Your task to perform on an android device: open app "DuckDuckGo Privacy Browser" Image 0: 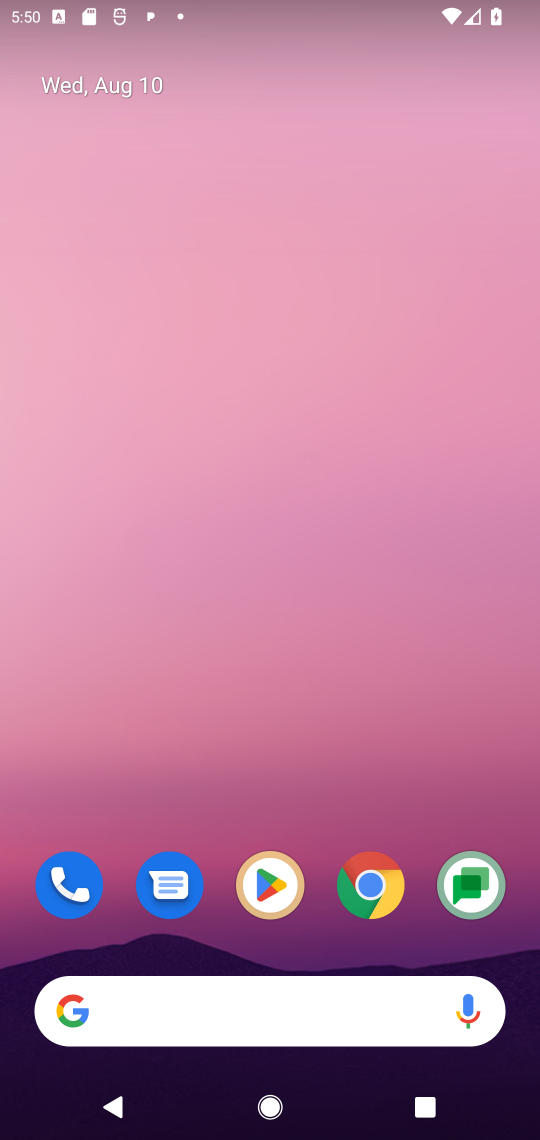
Step 0: click (272, 889)
Your task to perform on an android device: open app "DuckDuckGo Privacy Browser" Image 1: 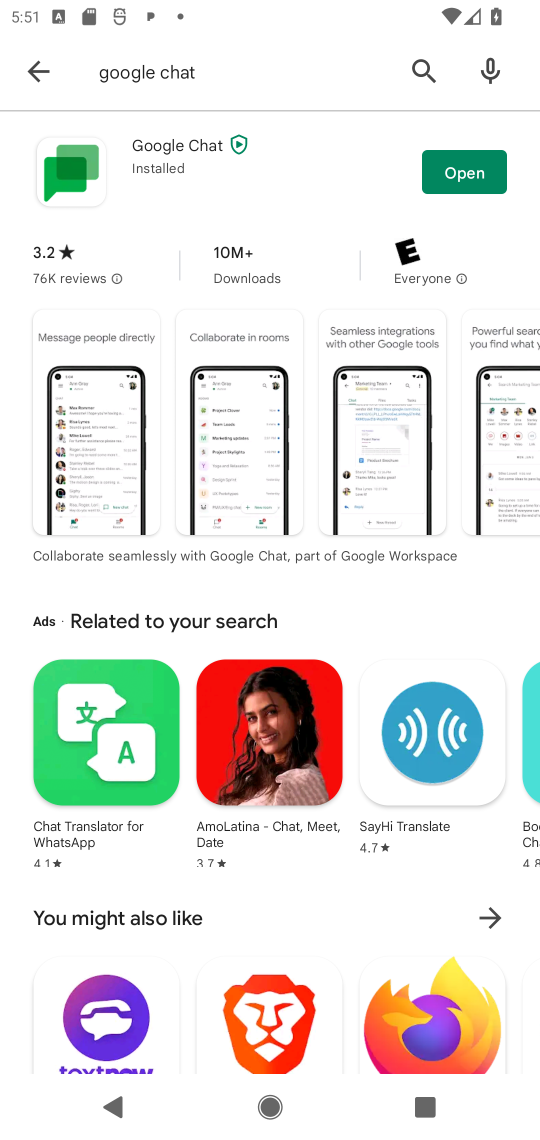
Step 1: click (403, 71)
Your task to perform on an android device: open app "DuckDuckGo Privacy Browser" Image 2: 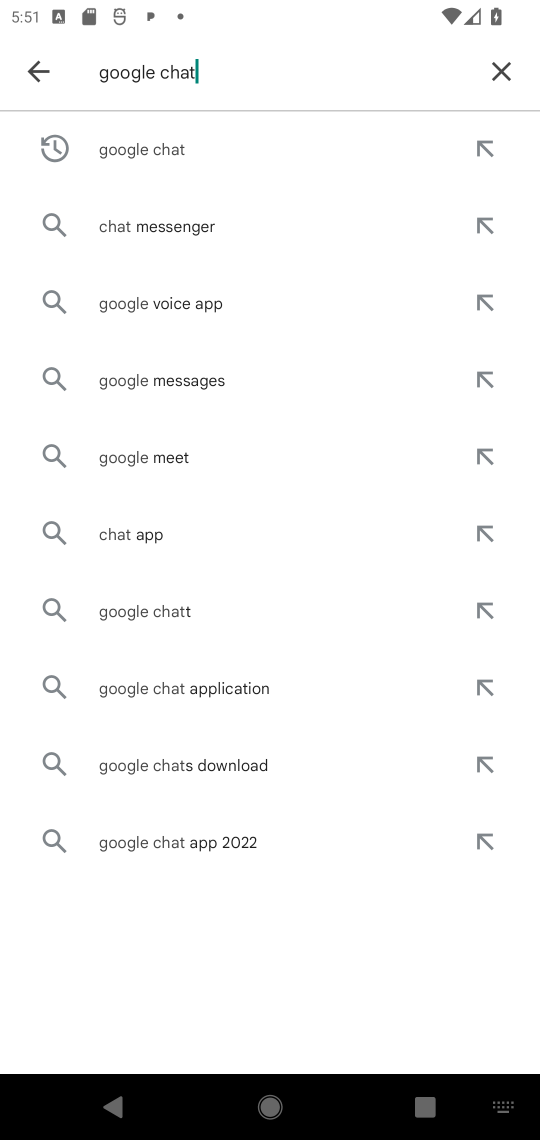
Step 2: click (500, 65)
Your task to perform on an android device: open app "DuckDuckGo Privacy Browser" Image 3: 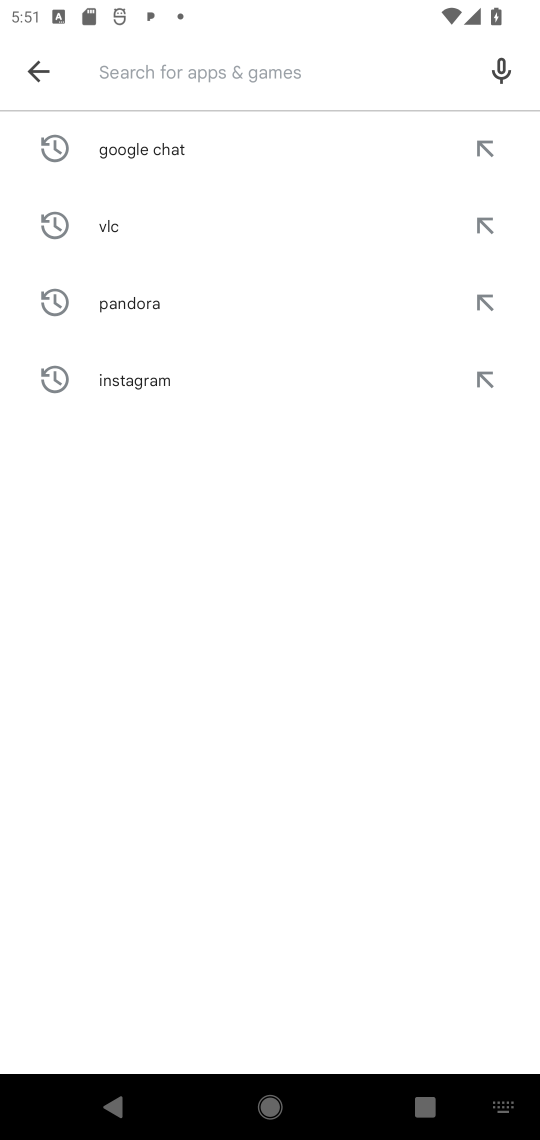
Step 3: click (178, 75)
Your task to perform on an android device: open app "DuckDuckGo Privacy Browser" Image 4: 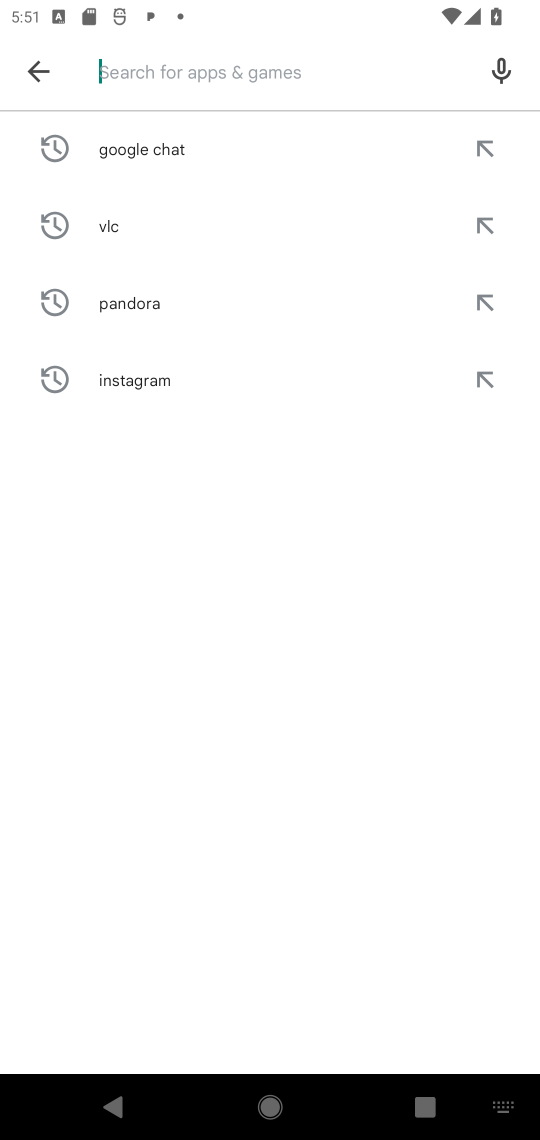
Step 4: type "DuckDuckGo Privacy Browser""
Your task to perform on an android device: open app "DuckDuckGo Privacy Browser" Image 5: 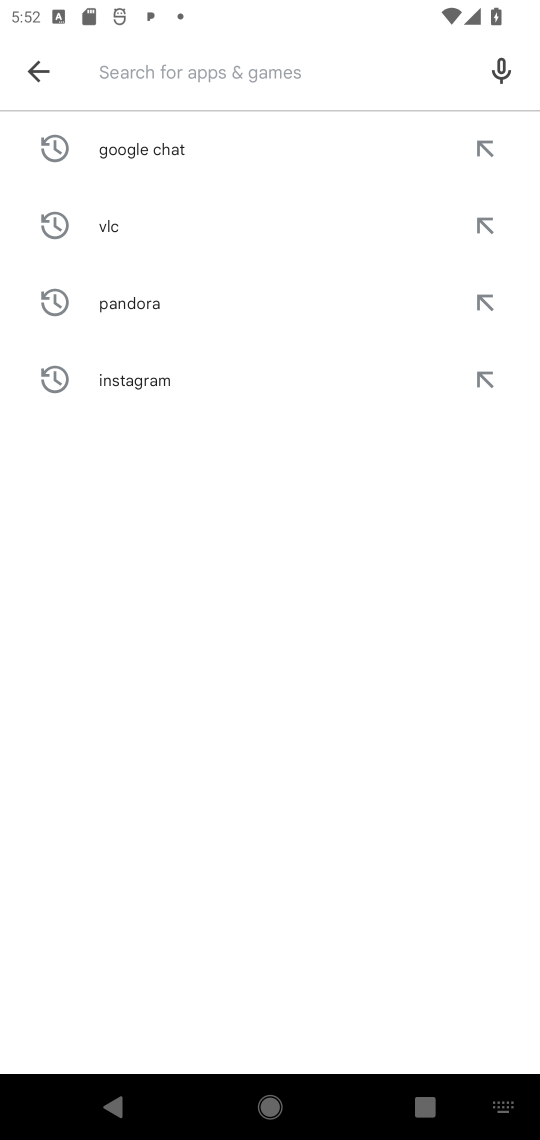
Step 5: click (174, 77)
Your task to perform on an android device: open app "DuckDuckGo Privacy Browser" Image 6: 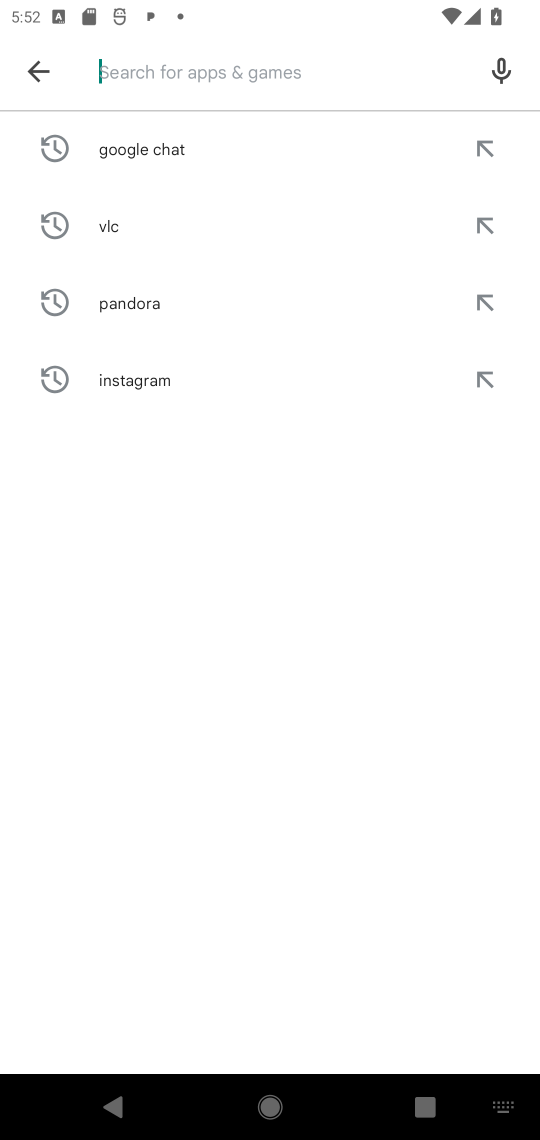
Step 6: type "duckduckgo"
Your task to perform on an android device: open app "DuckDuckGo Privacy Browser" Image 7: 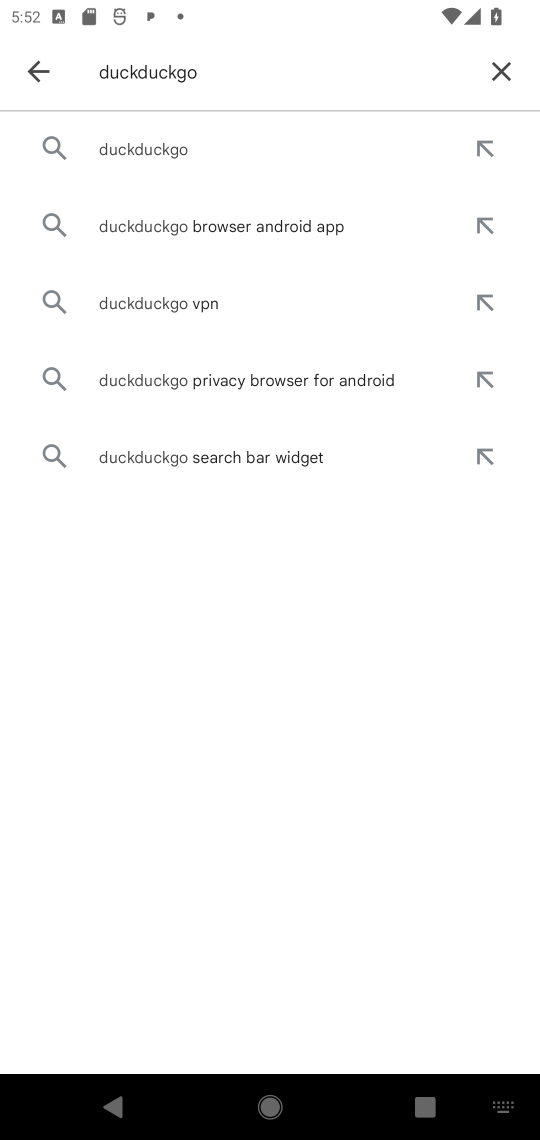
Step 7: click (150, 156)
Your task to perform on an android device: open app "DuckDuckGo Privacy Browser" Image 8: 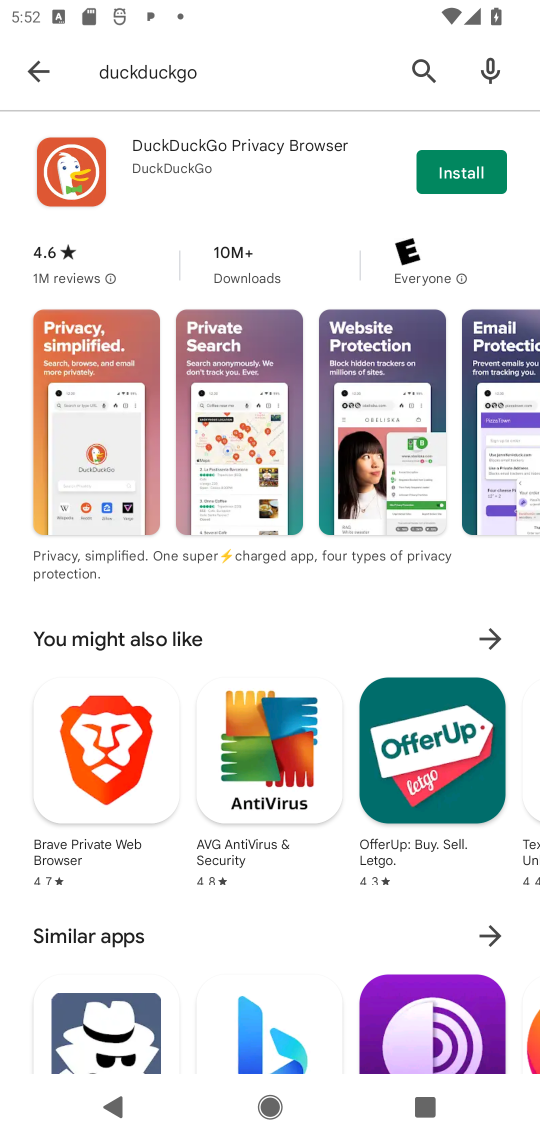
Step 8: click (439, 179)
Your task to perform on an android device: open app "DuckDuckGo Privacy Browser" Image 9: 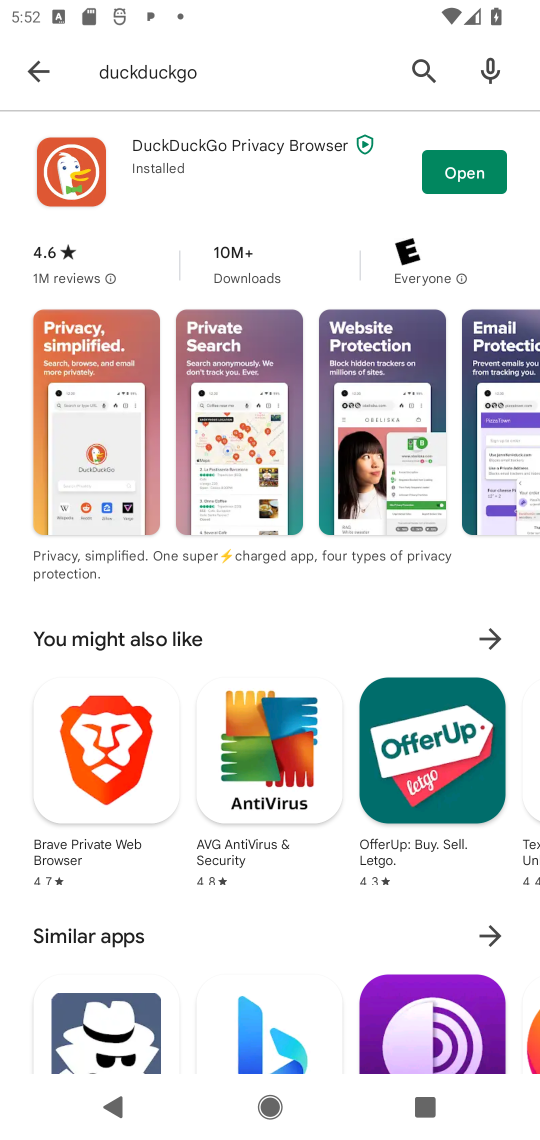
Step 9: click (445, 175)
Your task to perform on an android device: open app "DuckDuckGo Privacy Browser" Image 10: 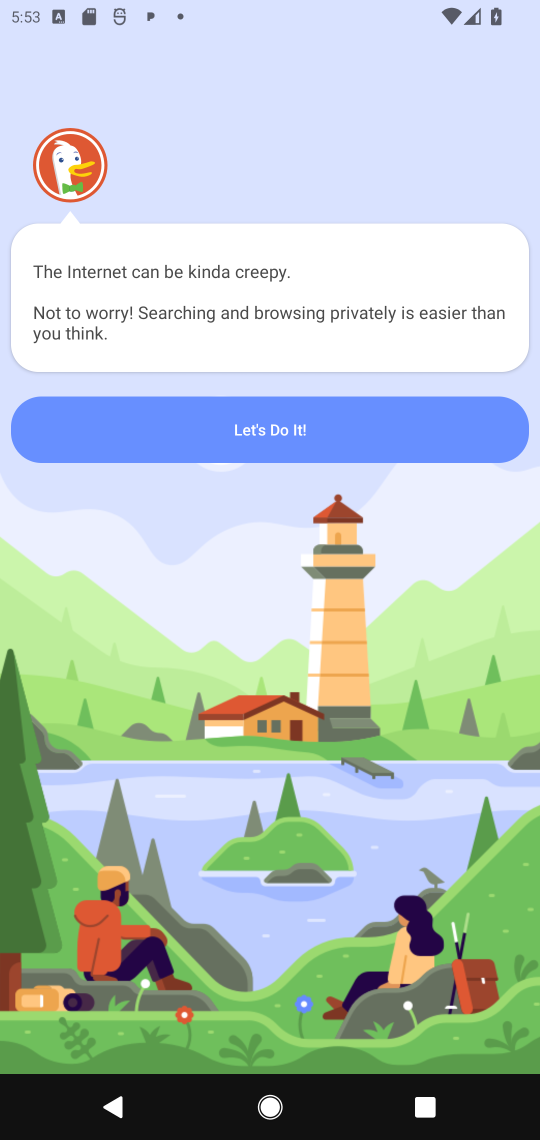
Step 10: task complete